Your task to perform on an android device: What is the recent news? Image 0: 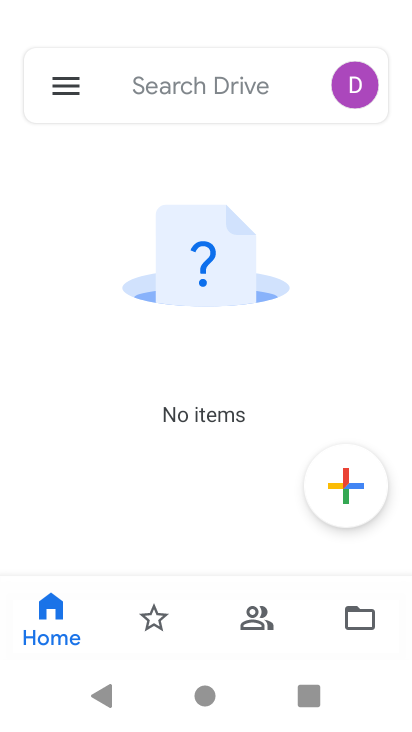
Step 0: press back button
Your task to perform on an android device: What is the recent news? Image 1: 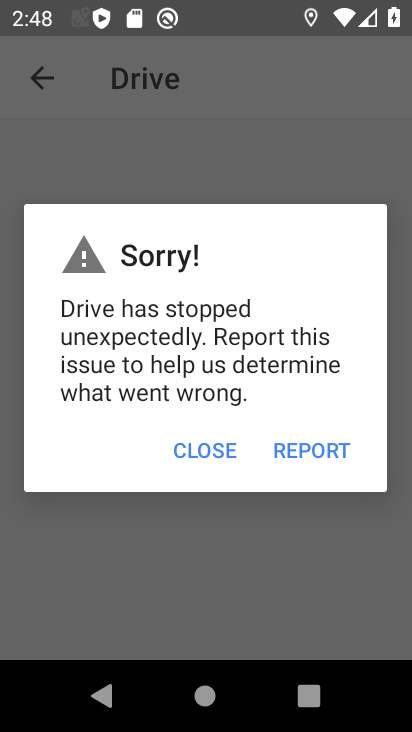
Step 1: press back button
Your task to perform on an android device: What is the recent news? Image 2: 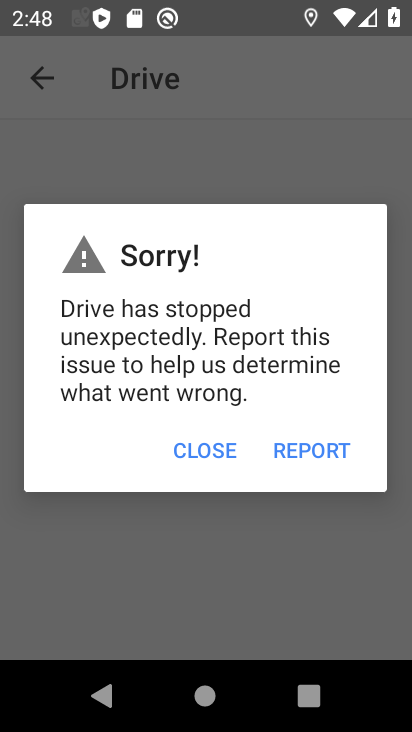
Step 2: press home button
Your task to perform on an android device: What is the recent news? Image 3: 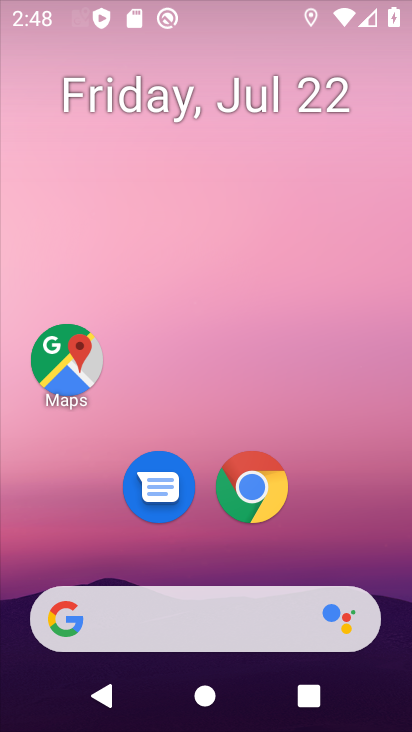
Step 3: click (154, 613)
Your task to perform on an android device: What is the recent news? Image 4: 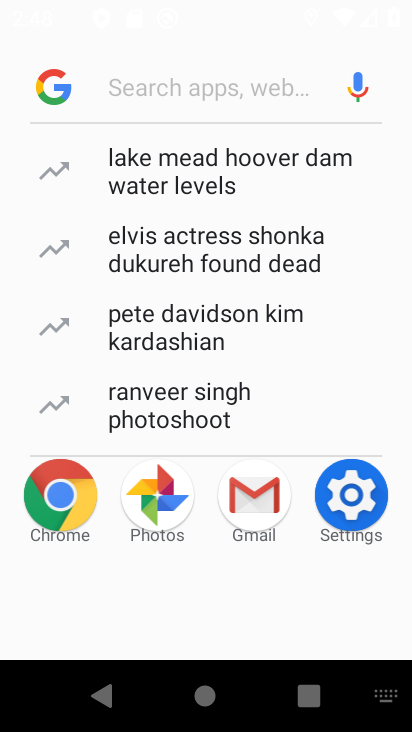
Step 4: click (152, 83)
Your task to perform on an android device: What is the recent news? Image 5: 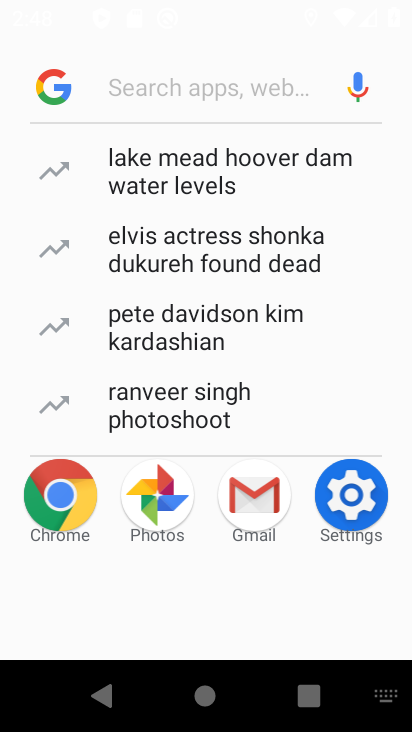
Step 5: type "recent news"
Your task to perform on an android device: What is the recent news? Image 6: 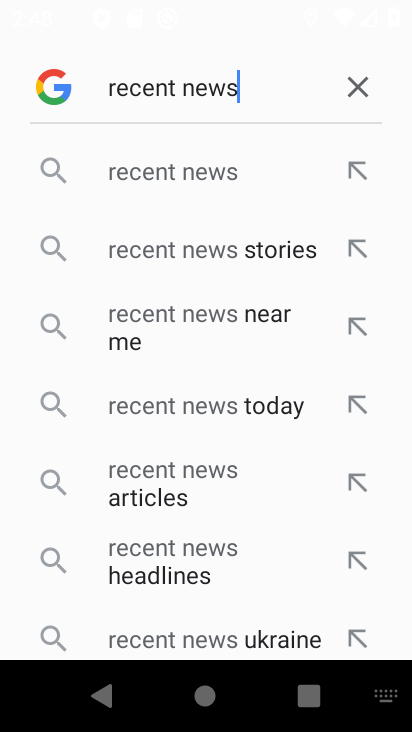
Step 6: click (170, 166)
Your task to perform on an android device: What is the recent news? Image 7: 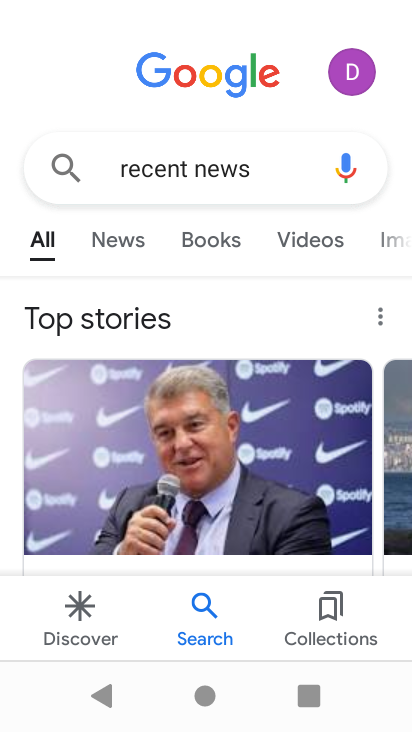
Step 7: task complete